Your task to perform on an android device: Open notification settings Image 0: 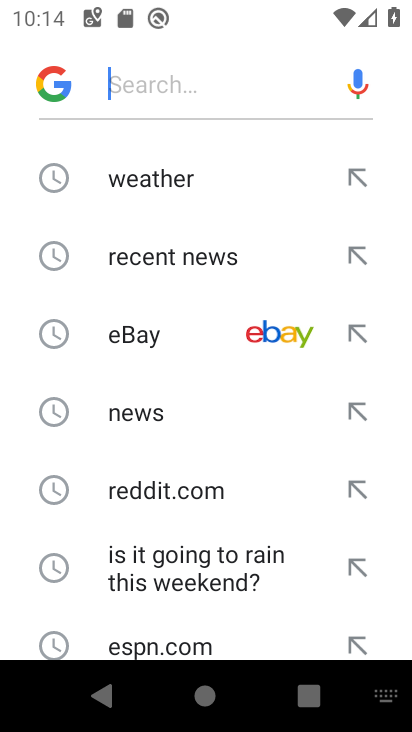
Step 0: press home button
Your task to perform on an android device: Open notification settings Image 1: 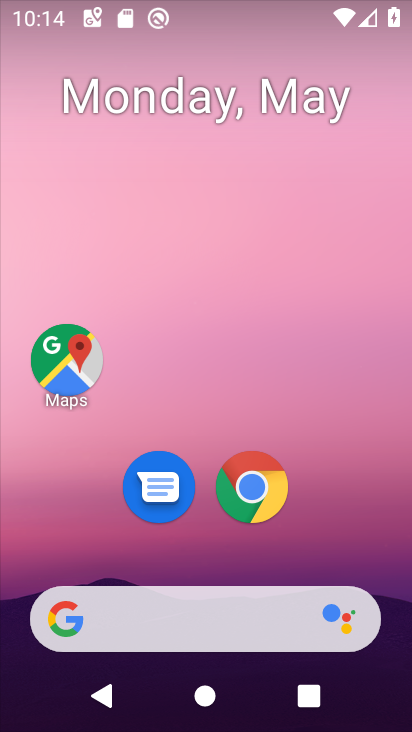
Step 1: drag from (313, 537) to (306, 25)
Your task to perform on an android device: Open notification settings Image 2: 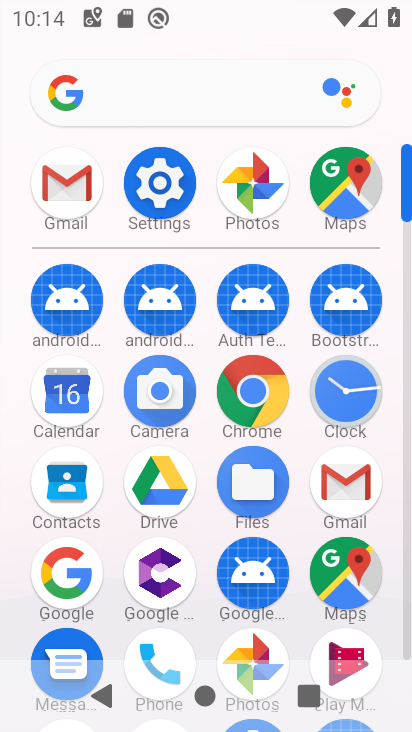
Step 2: click (169, 183)
Your task to perform on an android device: Open notification settings Image 3: 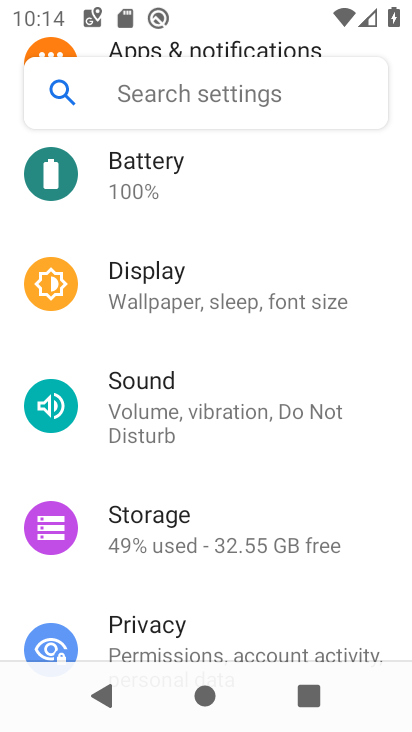
Step 3: drag from (238, 298) to (242, 397)
Your task to perform on an android device: Open notification settings Image 4: 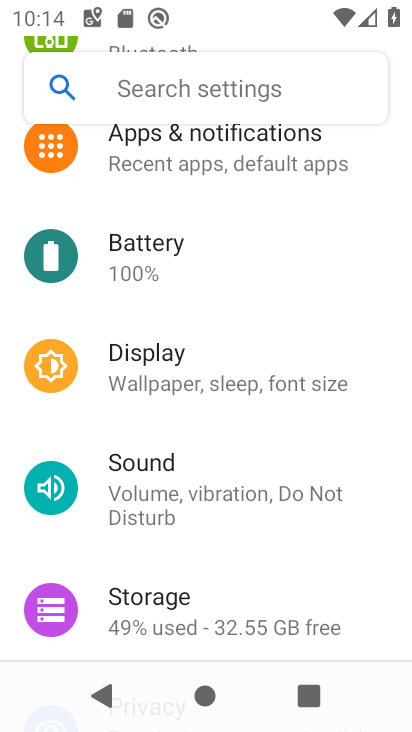
Step 4: drag from (263, 275) to (251, 398)
Your task to perform on an android device: Open notification settings Image 5: 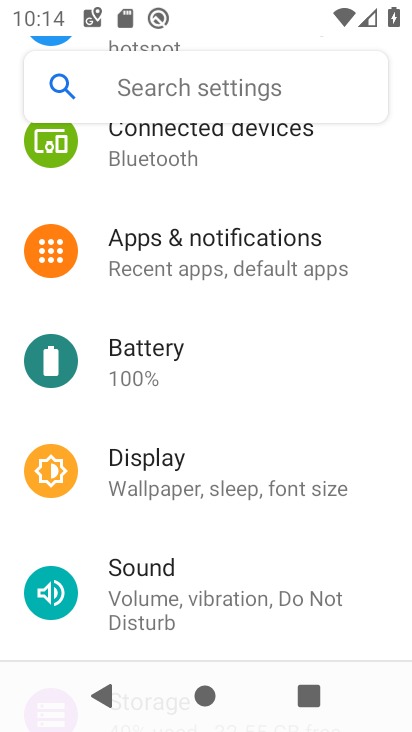
Step 5: click (220, 273)
Your task to perform on an android device: Open notification settings Image 6: 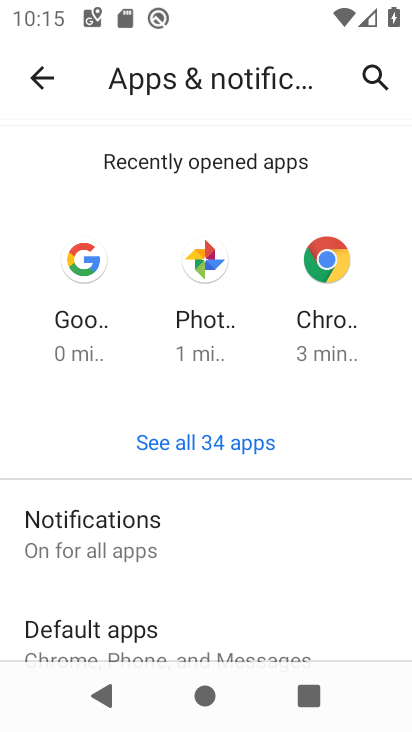
Step 6: click (102, 522)
Your task to perform on an android device: Open notification settings Image 7: 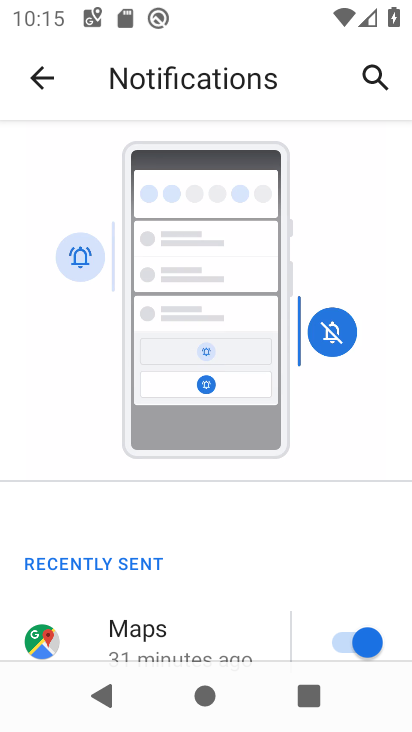
Step 7: task complete